Your task to perform on an android device: toggle improve location accuracy Image 0: 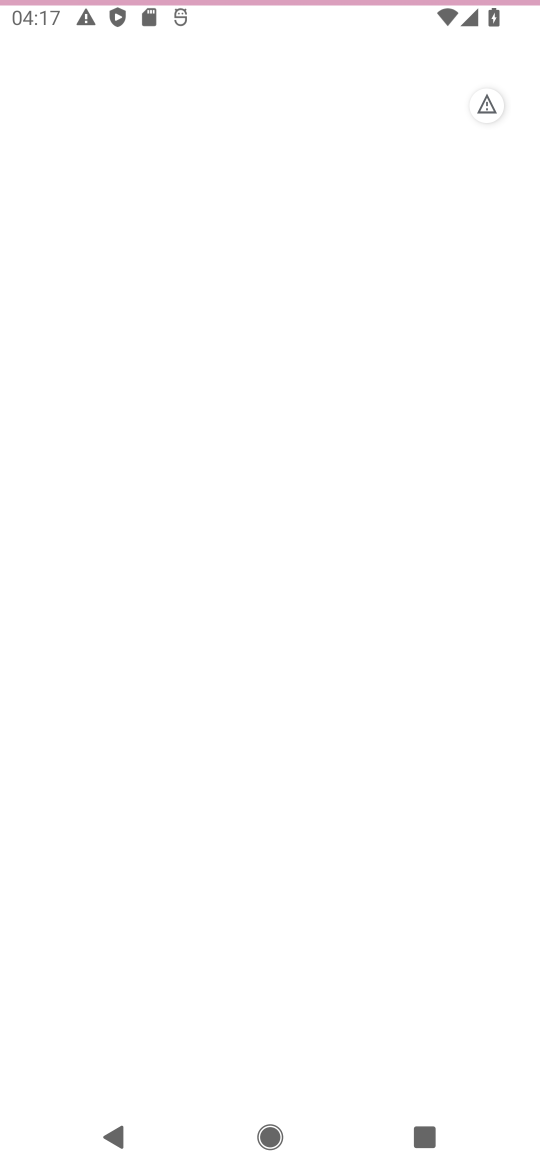
Step 0: press home button
Your task to perform on an android device: toggle improve location accuracy Image 1: 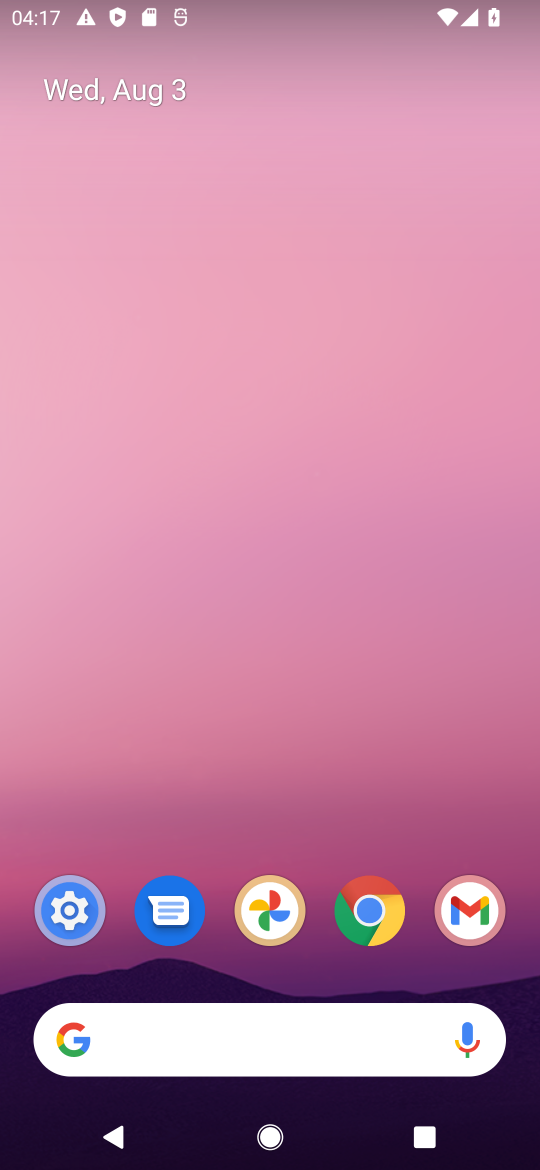
Step 1: drag from (314, 849) to (378, 16)
Your task to perform on an android device: toggle improve location accuracy Image 2: 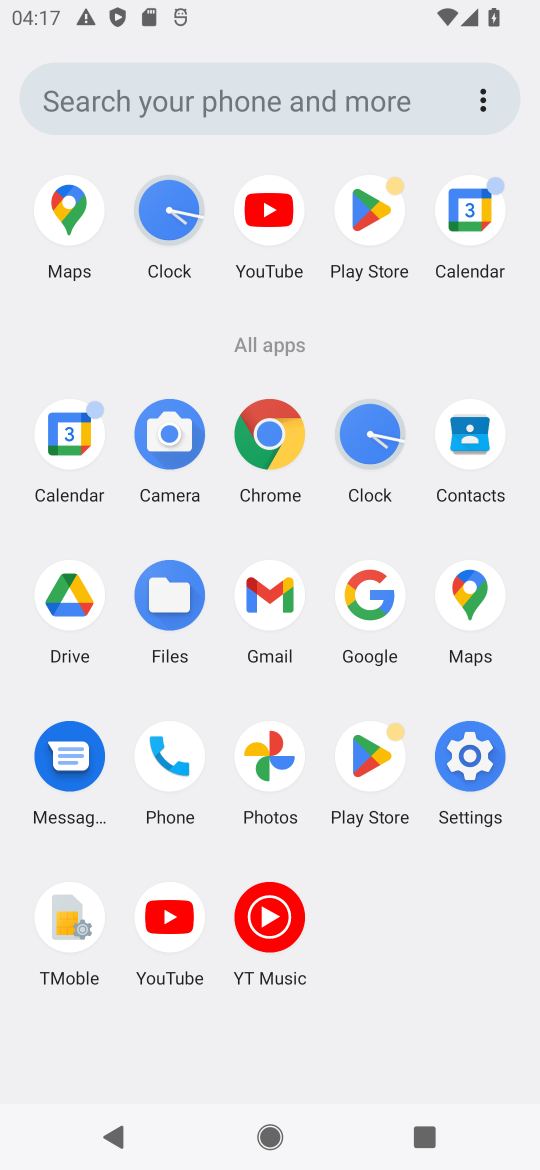
Step 2: click (468, 745)
Your task to perform on an android device: toggle improve location accuracy Image 3: 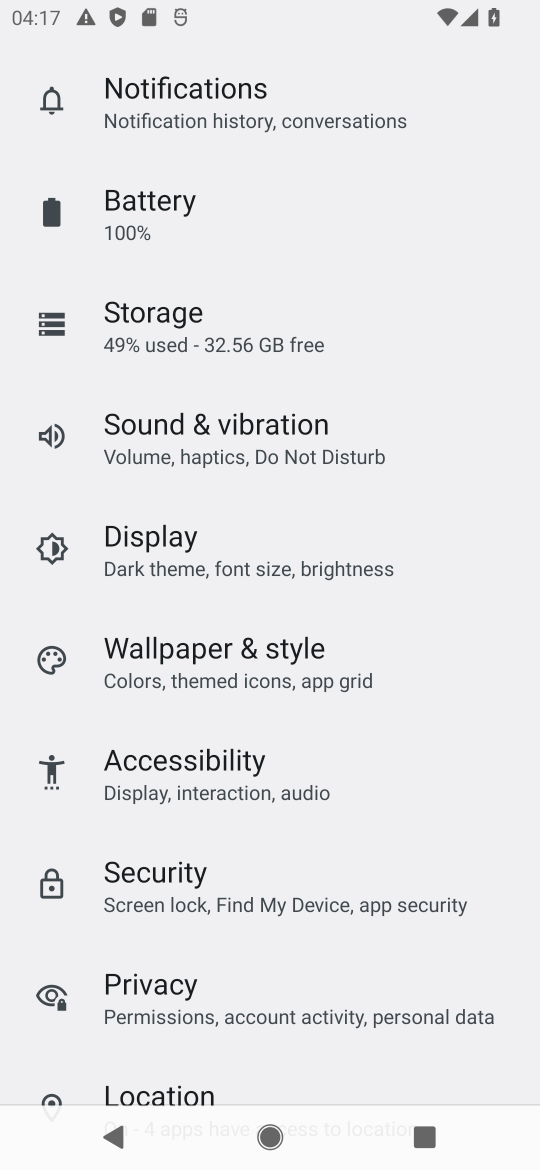
Step 3: click (232, 1076)
Your task to perform on an android device: toggle improve location accuracy Image 4: 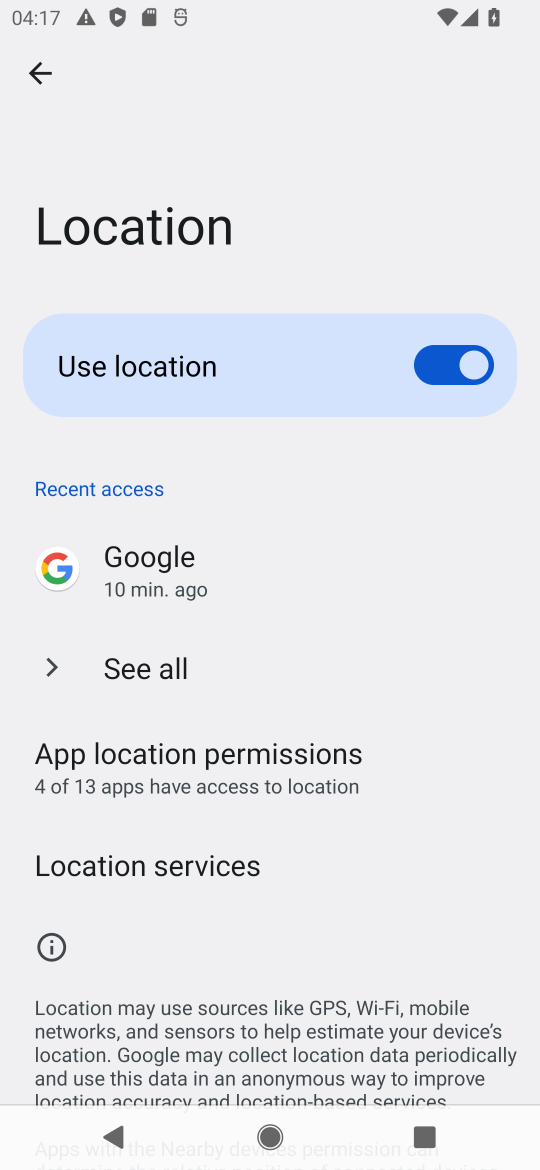
Step 4: click (171, 867)
Your task to perform on an android device: toggle improve location accuracy Image 5: 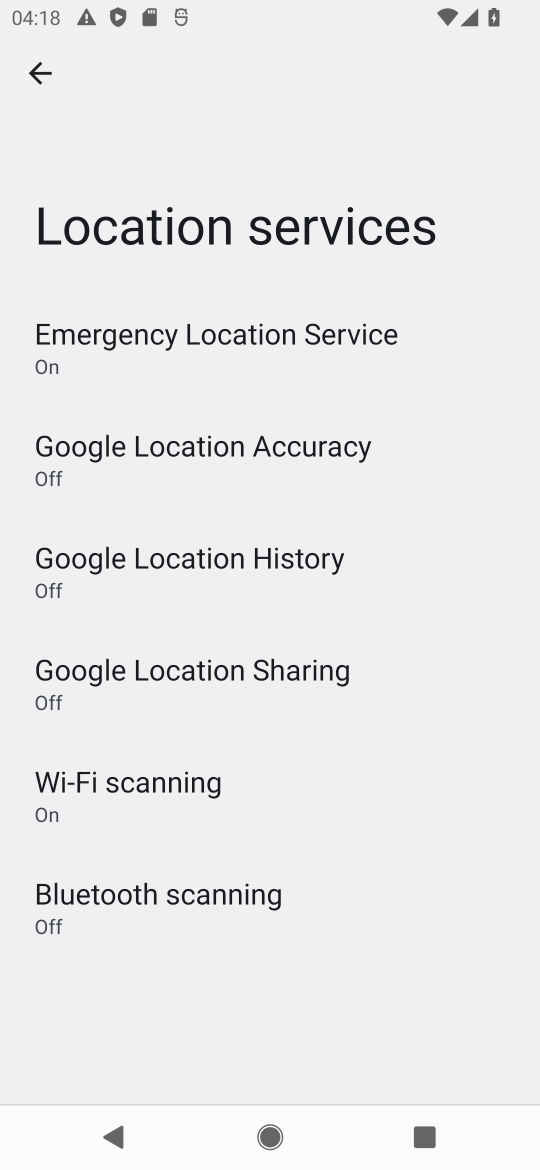
Step 5: click (254, 459)
Your task to perform on an android device: toggle improve location accuracy Image 6: 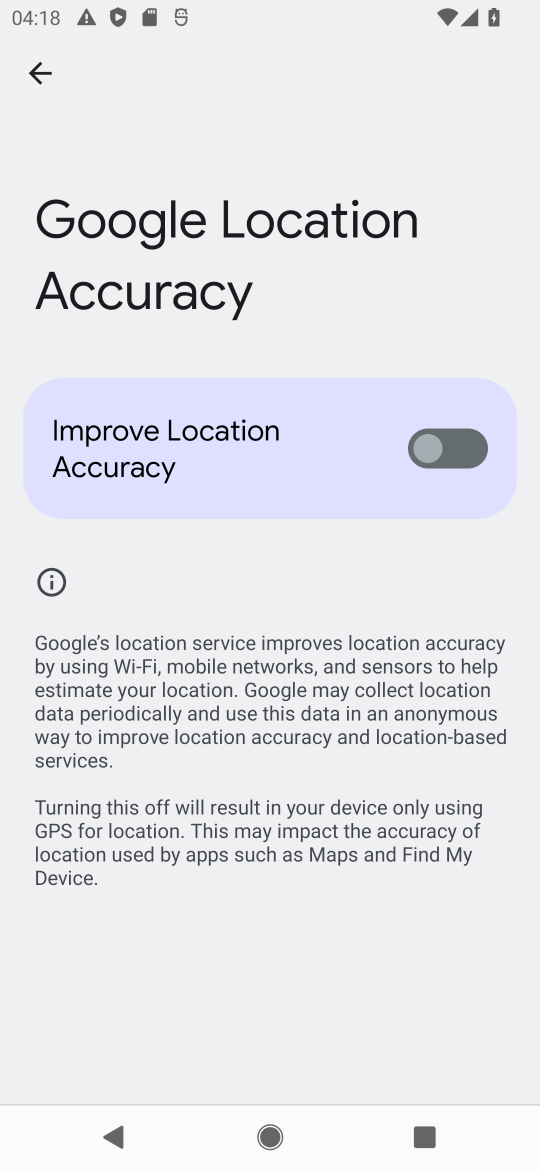
Step 6: click (460, 445)
Your task to perform on an android device: toggle improve location accuracy Image 7: 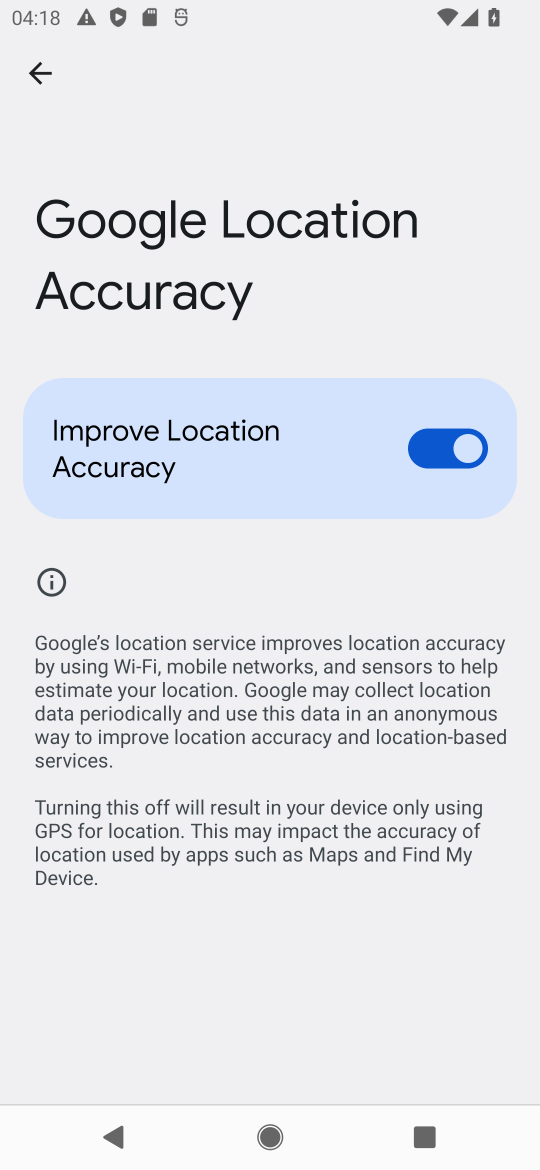
Step 7: task complete